Your task to perform on an android device: How much does a 3 bedroom apartment rent for in Denver? Image 0: 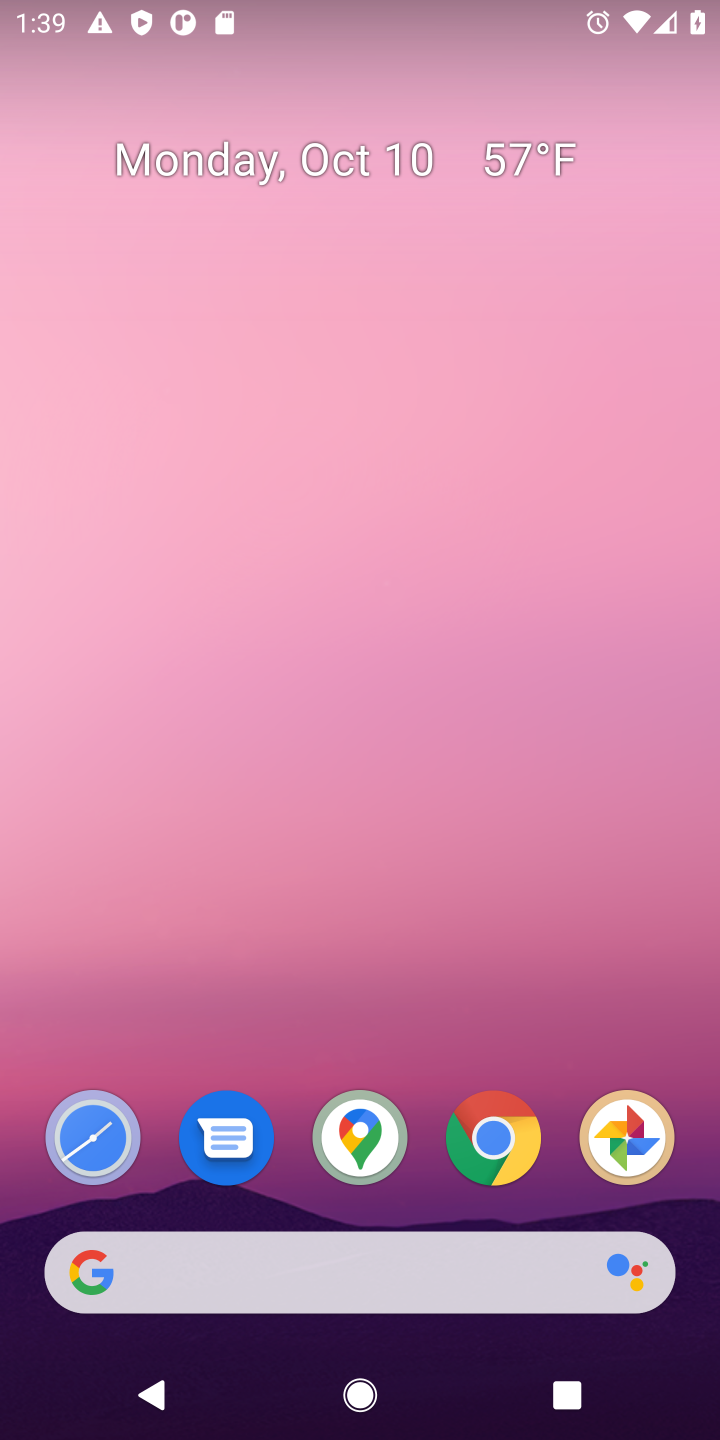
Step 0: click (443, 1277)
Your task to perform on an android device: How much does a 3 bedroom apartment rent for in Denver? Image 1: 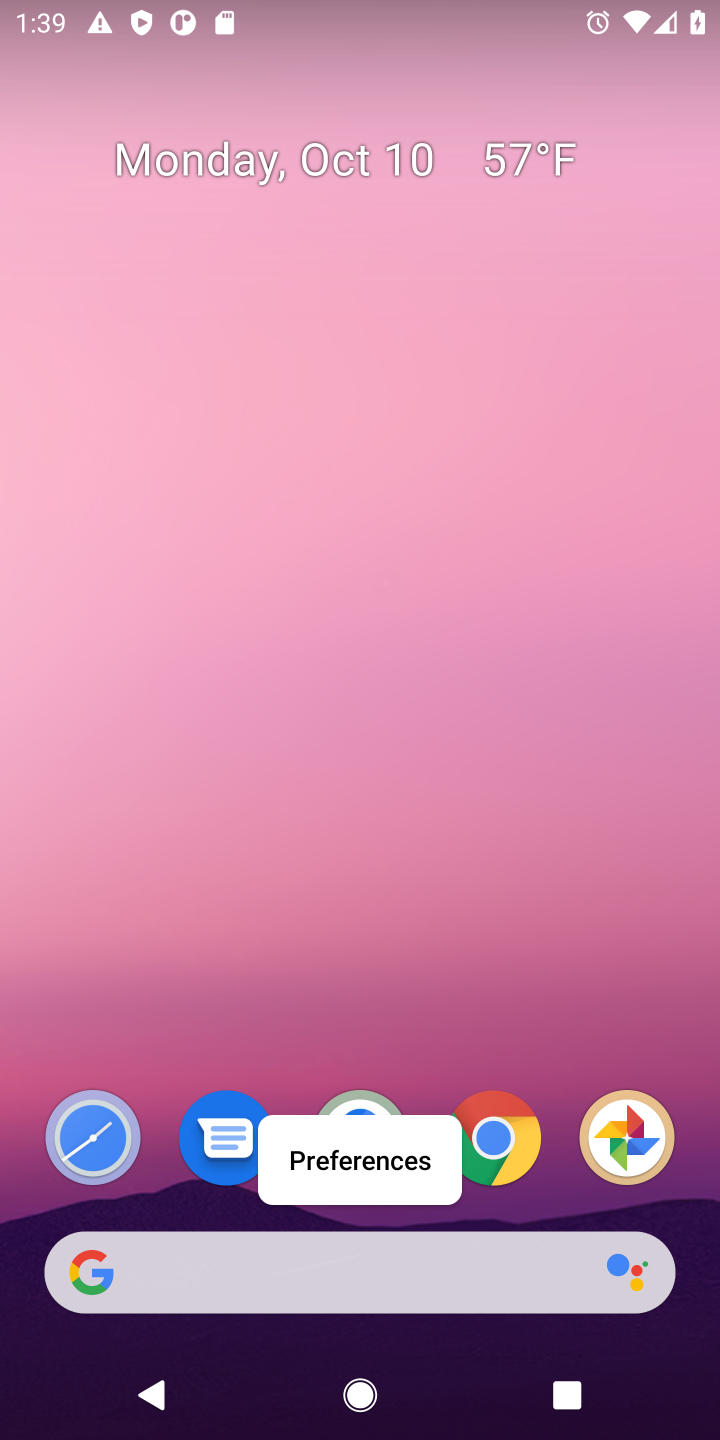
Step 1: click (499, 1278)
Your task to perform on an android device: How much does a 3 bedroom apartment rent for in Denver? Image 2: 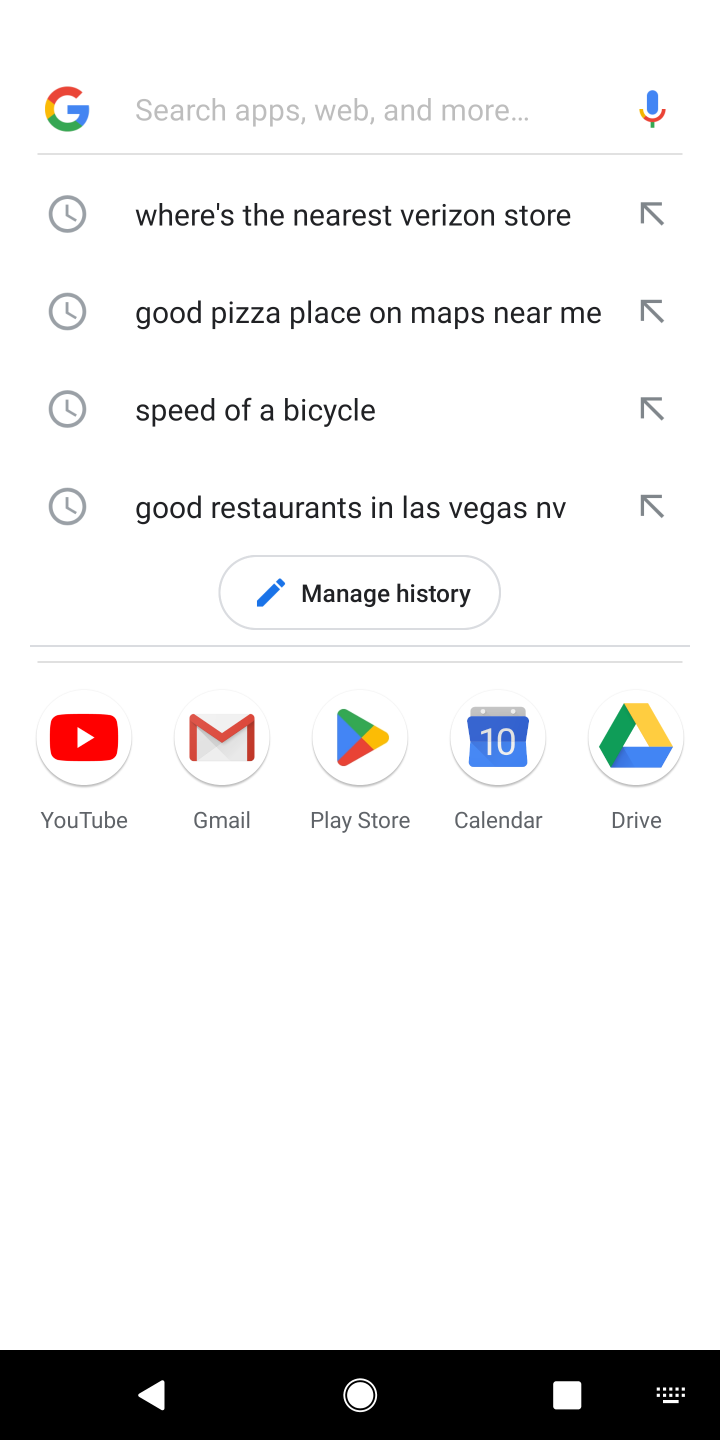
Step 2: type "How much does a 3 bedroom apartment rent for in Denver?"
Your task to perform on an android device: How much does a 3 bedroom apartment rent for in Denver? Image 3: 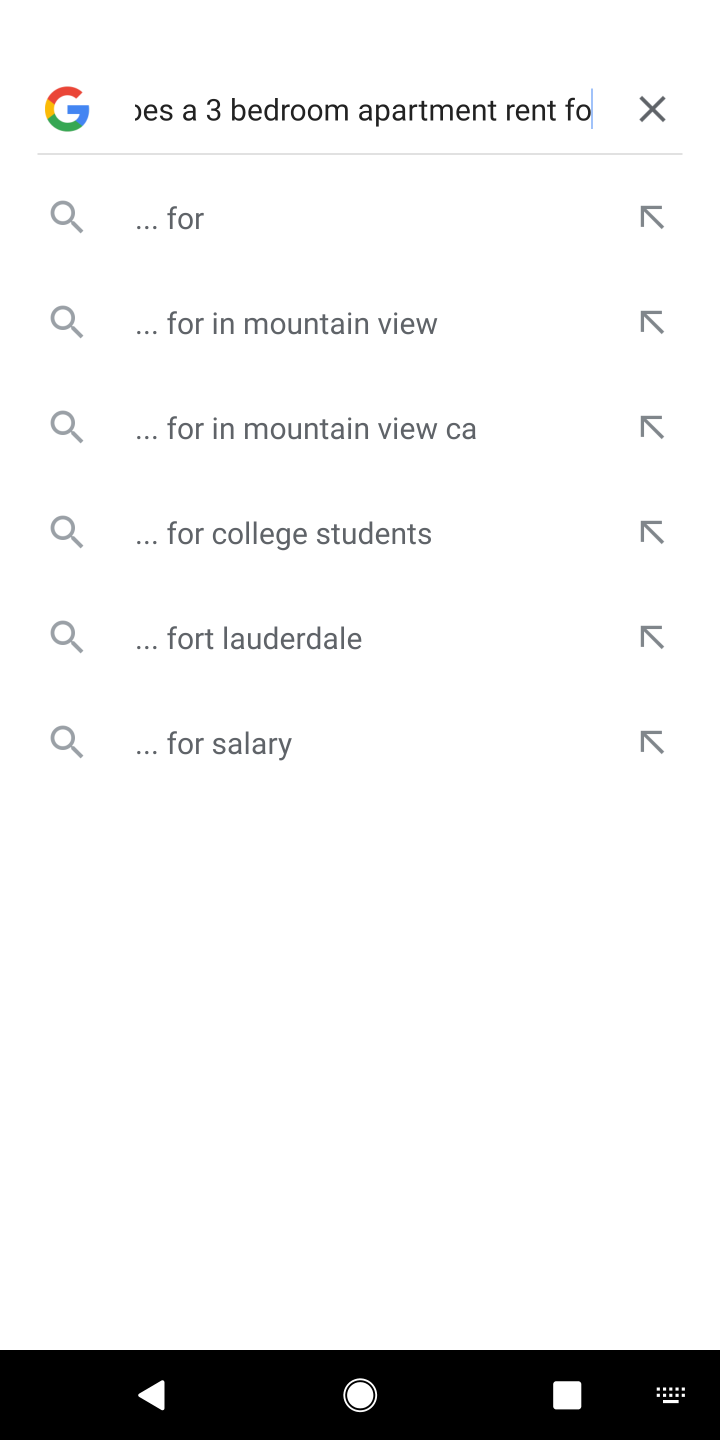
Step 3: type "r in denver"
Your task to perform on an android device: How much does a 3 bedroom apartment rent for in Denver? Image 4: 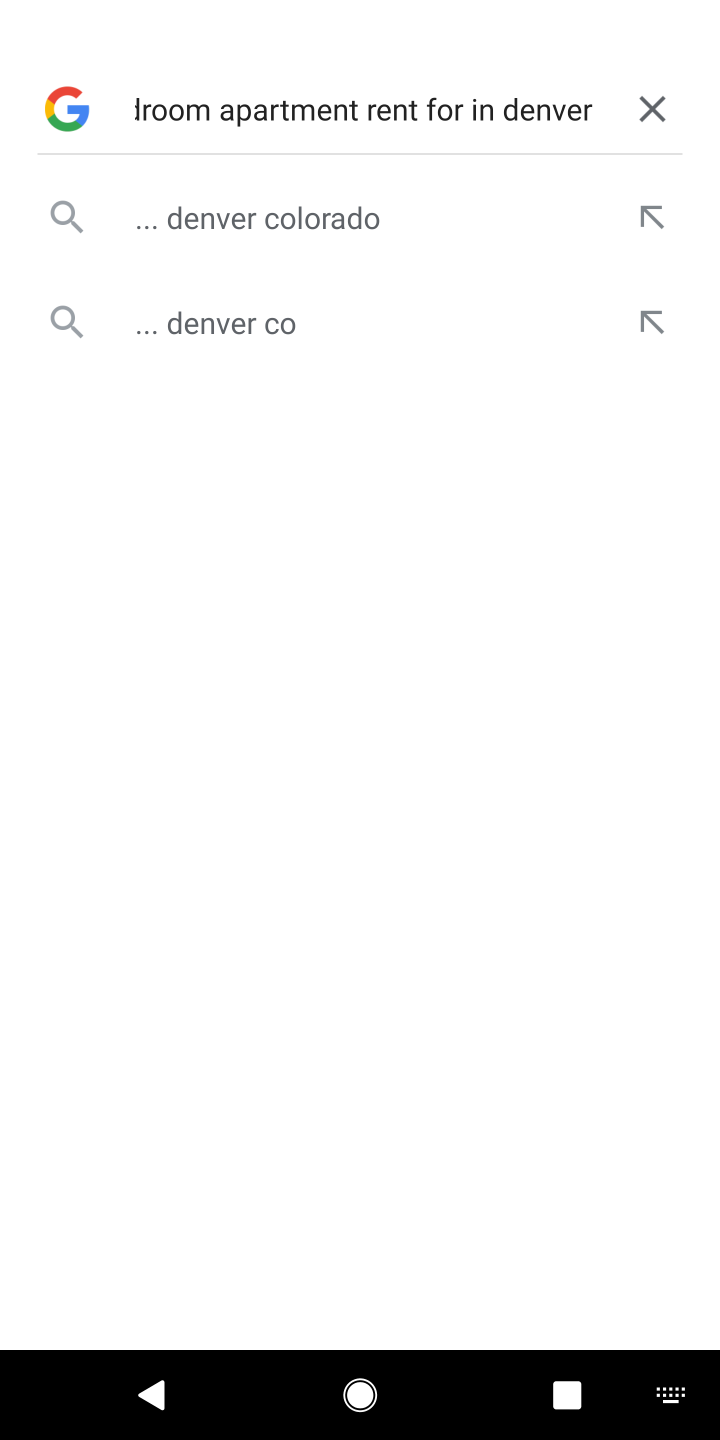
Step 4: click (191, 316)
Your task to perform on an android device: How much does a 3 bedroom apartment rent for in Denver? Image 5: 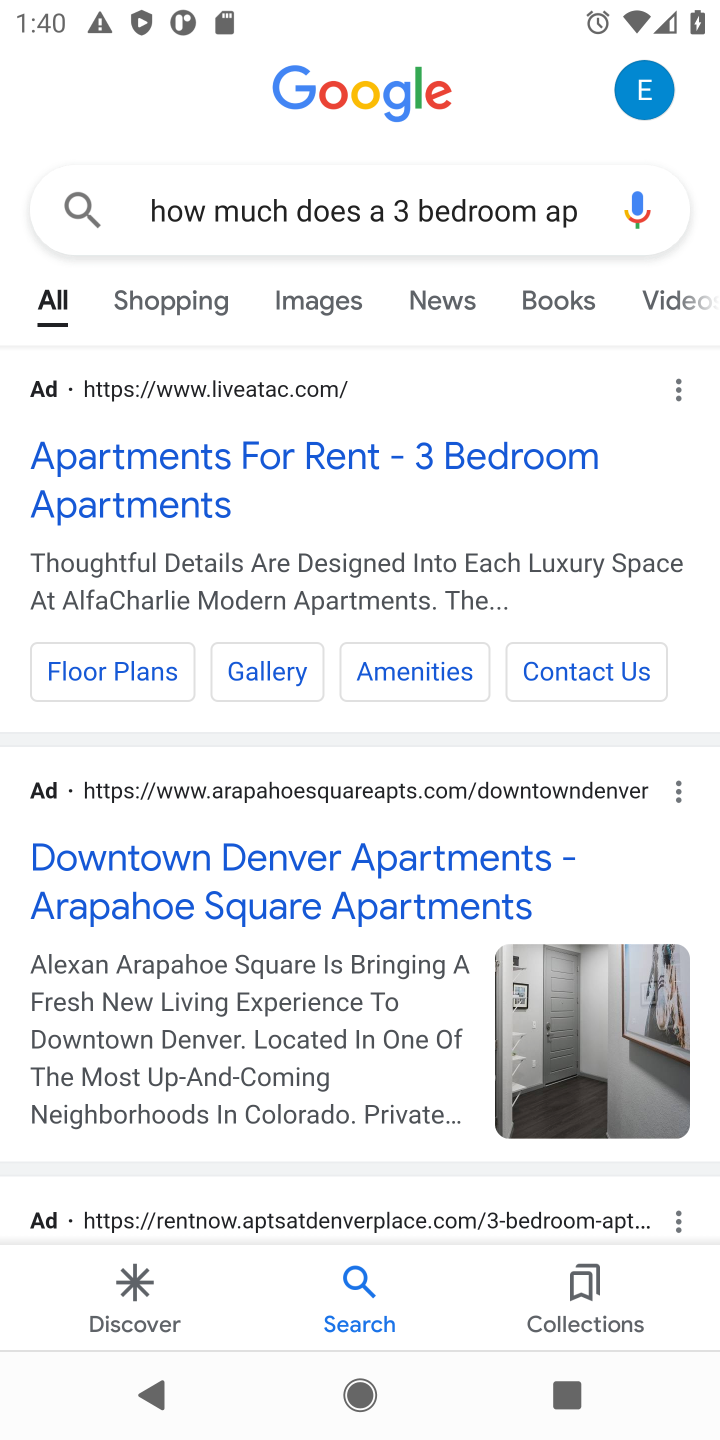
Step 5: click (206, 458)
Your task to perform on an android device: How much does a 3 bedroom apartment rent for in Denver? Image 6: 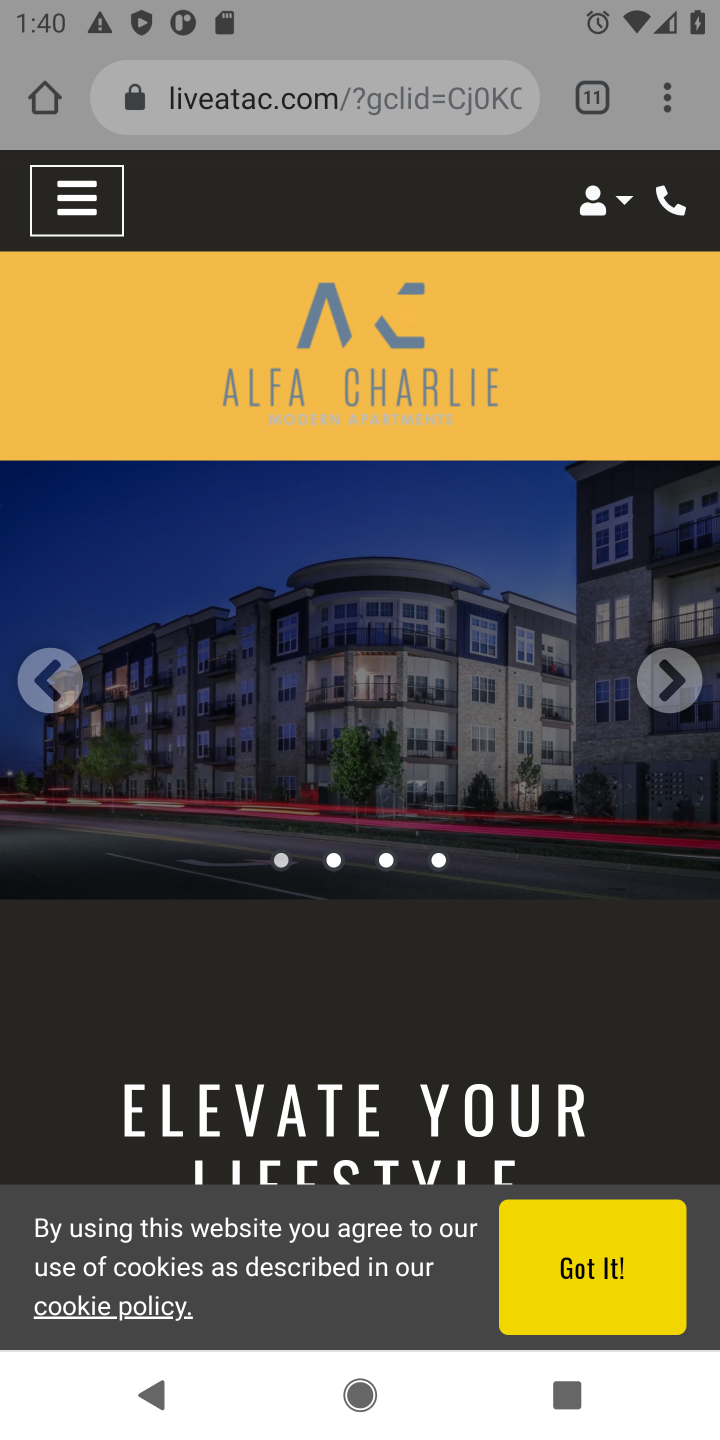
Step 6: click (576, 1267)
Your task to perform on an android device: How much does a 3 bedroom apartment rent for in Denver? Image 7: 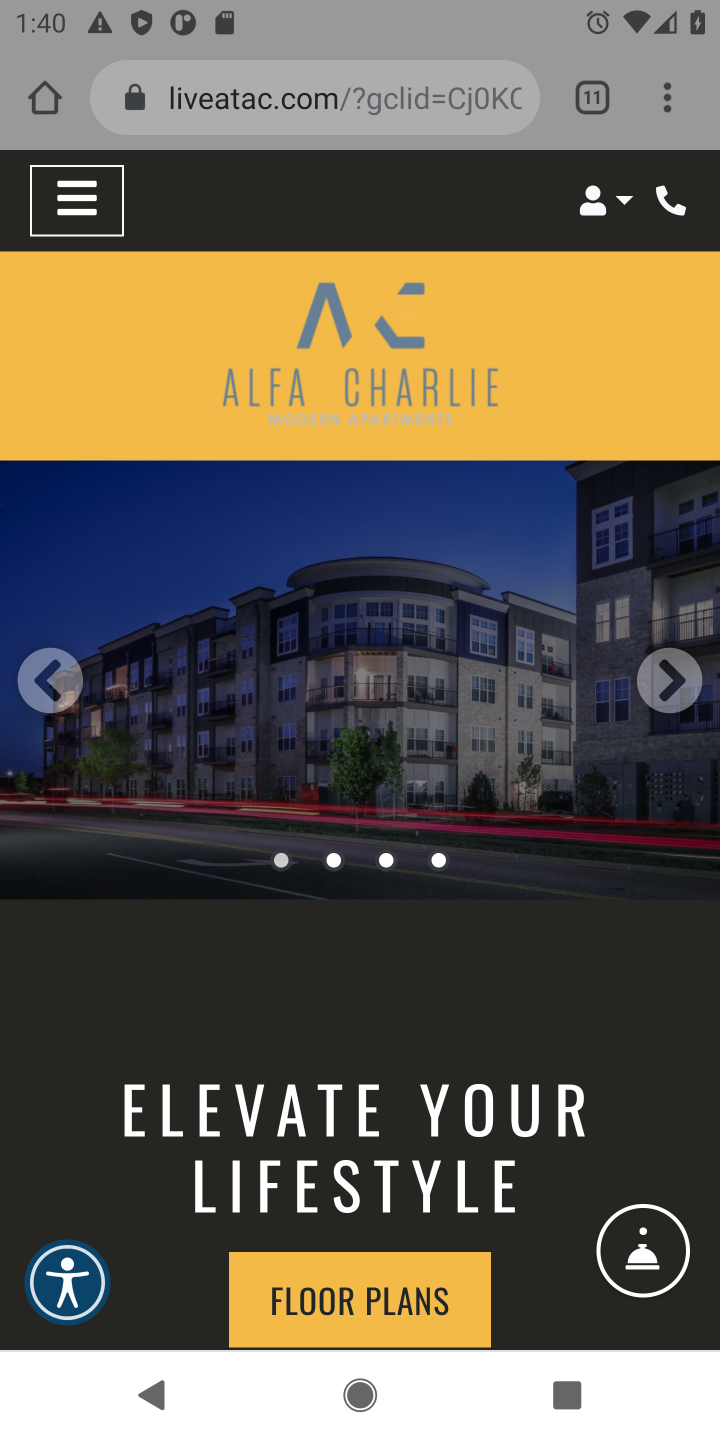
Step 7: click (651, 702)
Your task to perform on an android device: How much does a 3 bedroom apartment rent for in Denver? Image 8: 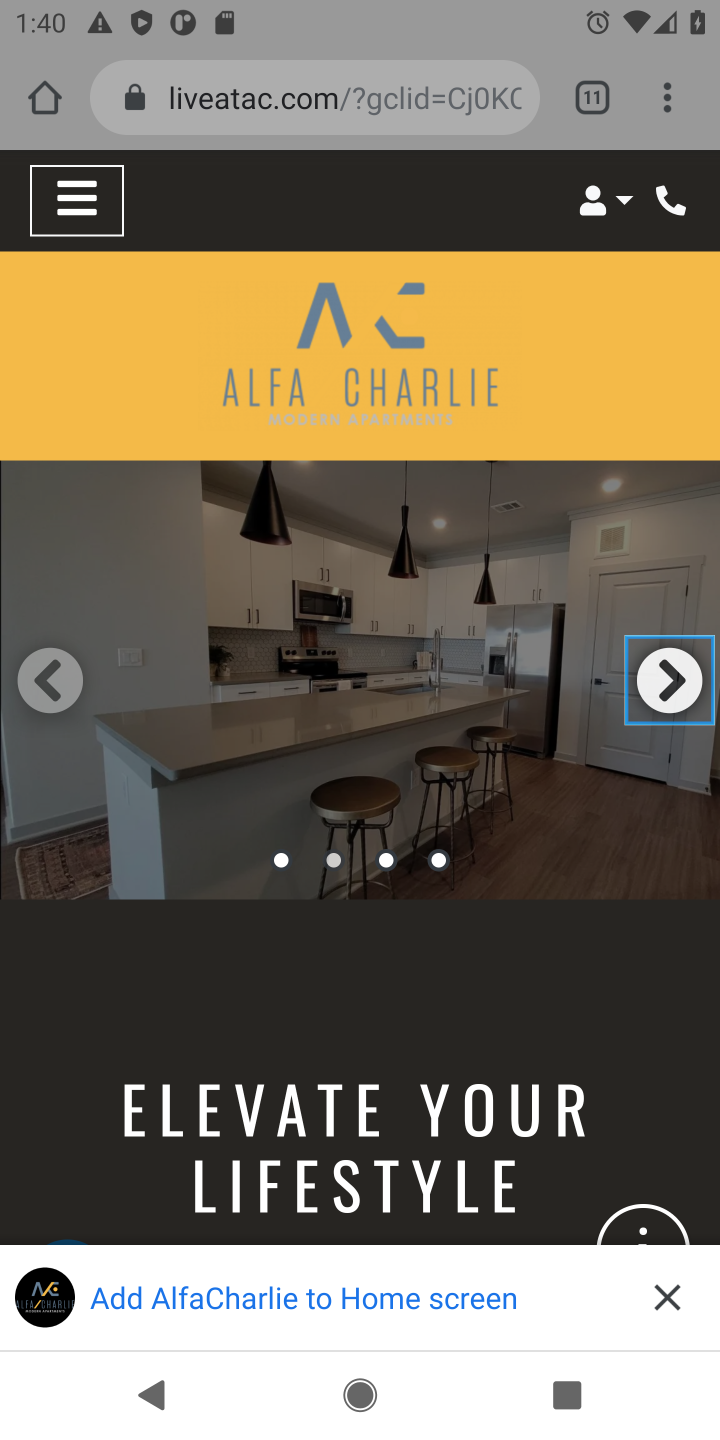
Step 8: click (651, 702)
Your task to perform on an android device: How much does a 3 bedroom apartment rent for in Denver? Image 9: 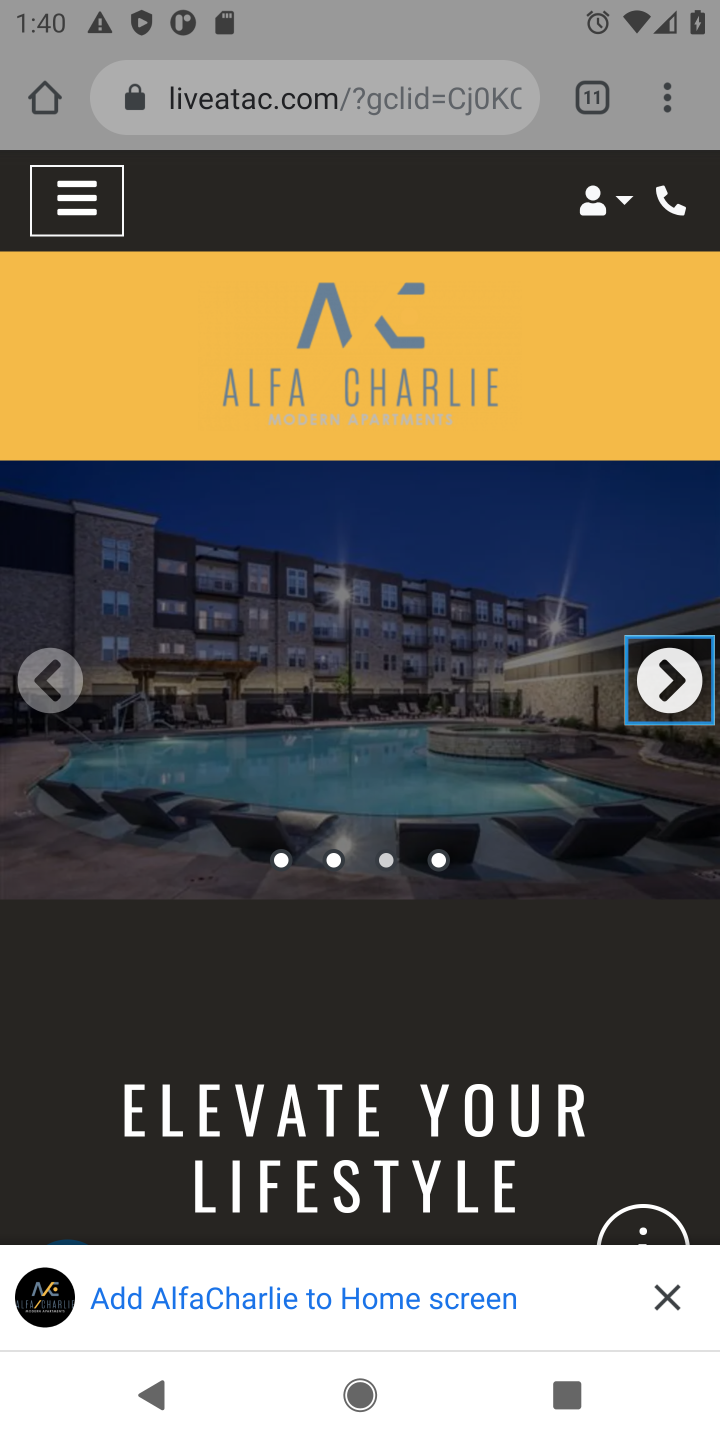
Step 9: click (651, 702)
Your task to perform on an android device: How much does a 3 bedroom apartment rent for in Denver? Image 10: 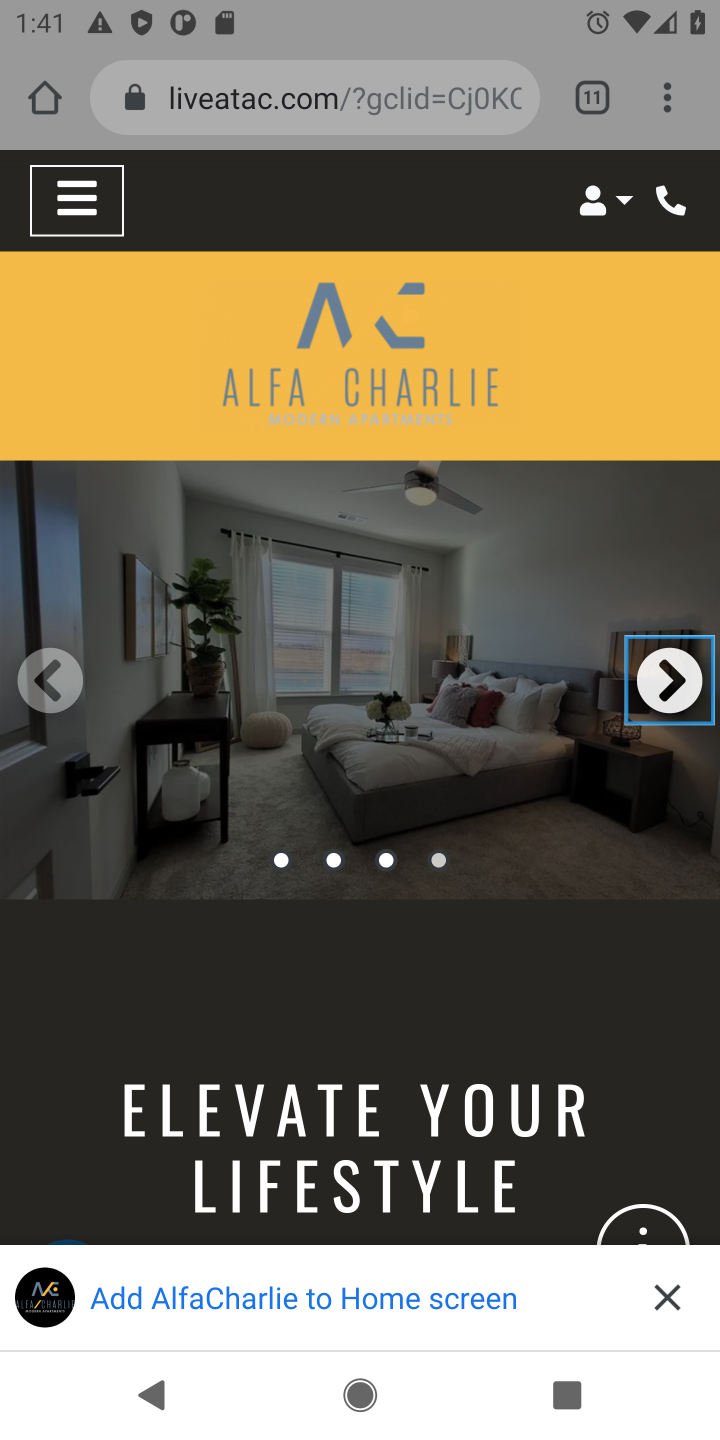
Step 10: click (651, 702)
Your task to perform on an android device: How much does a 3 bedroom apartment rent for in Denver? Image 11: 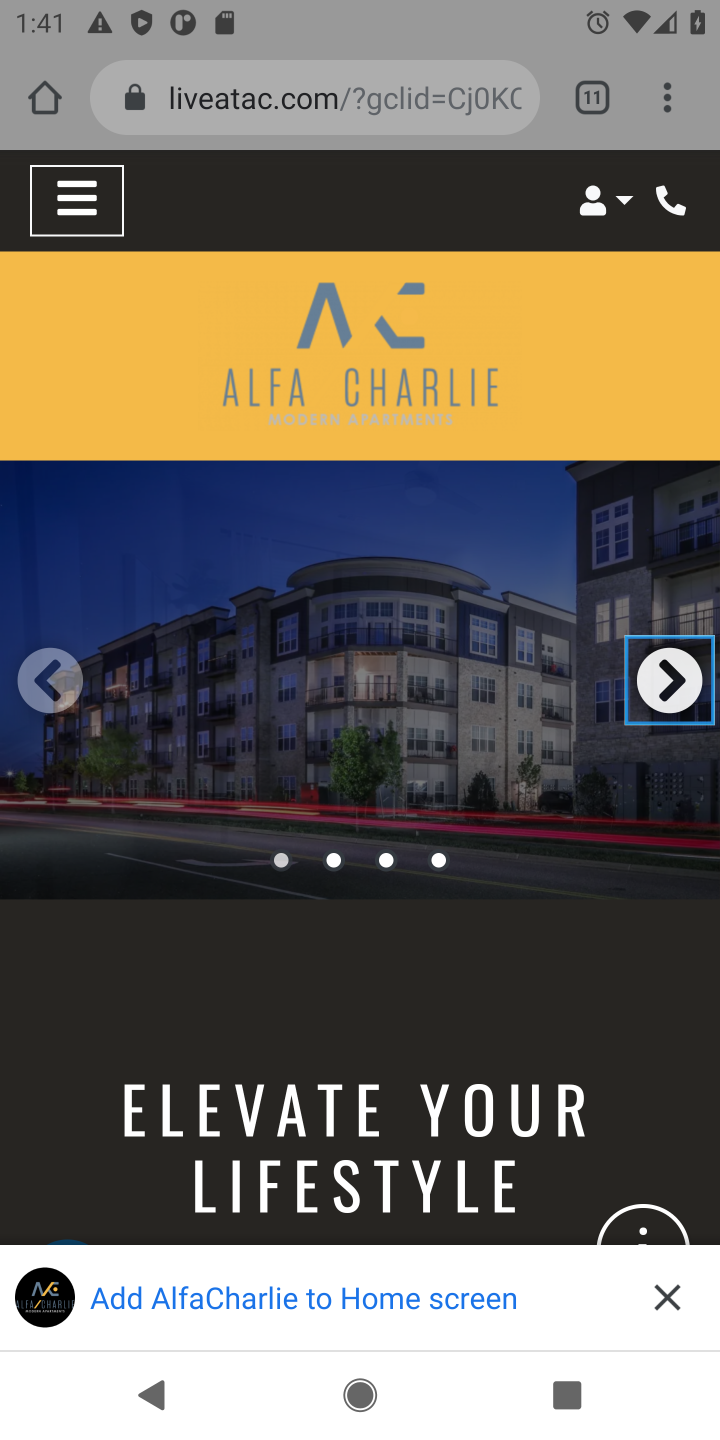
Step 11: click (72, 195)
Your task to perform on an android device: How much does a 3 bedroom apartment rent for in Denver? Image 12: 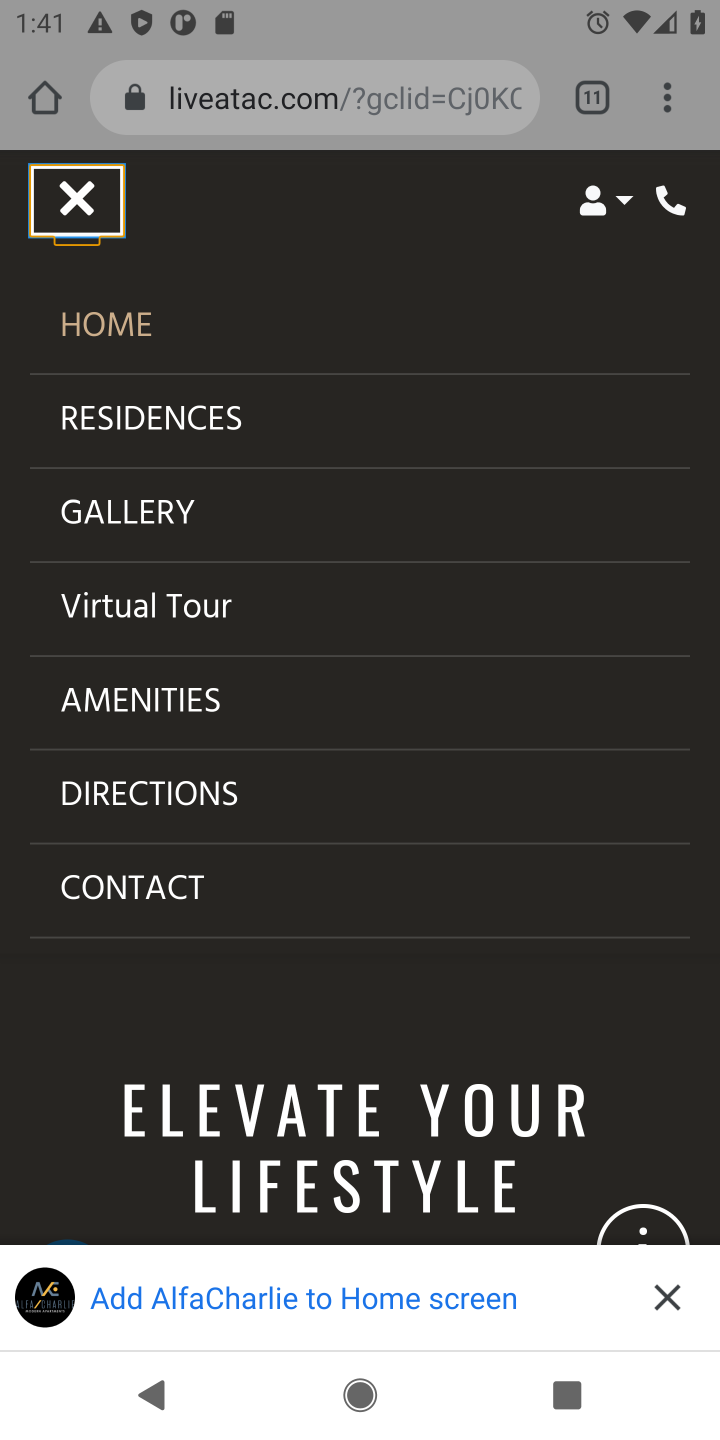
Step 12: click (81, 195)
Your task to perform on an android device: How much does a 3 bedroom apartment rent for in Denver? Image 13: 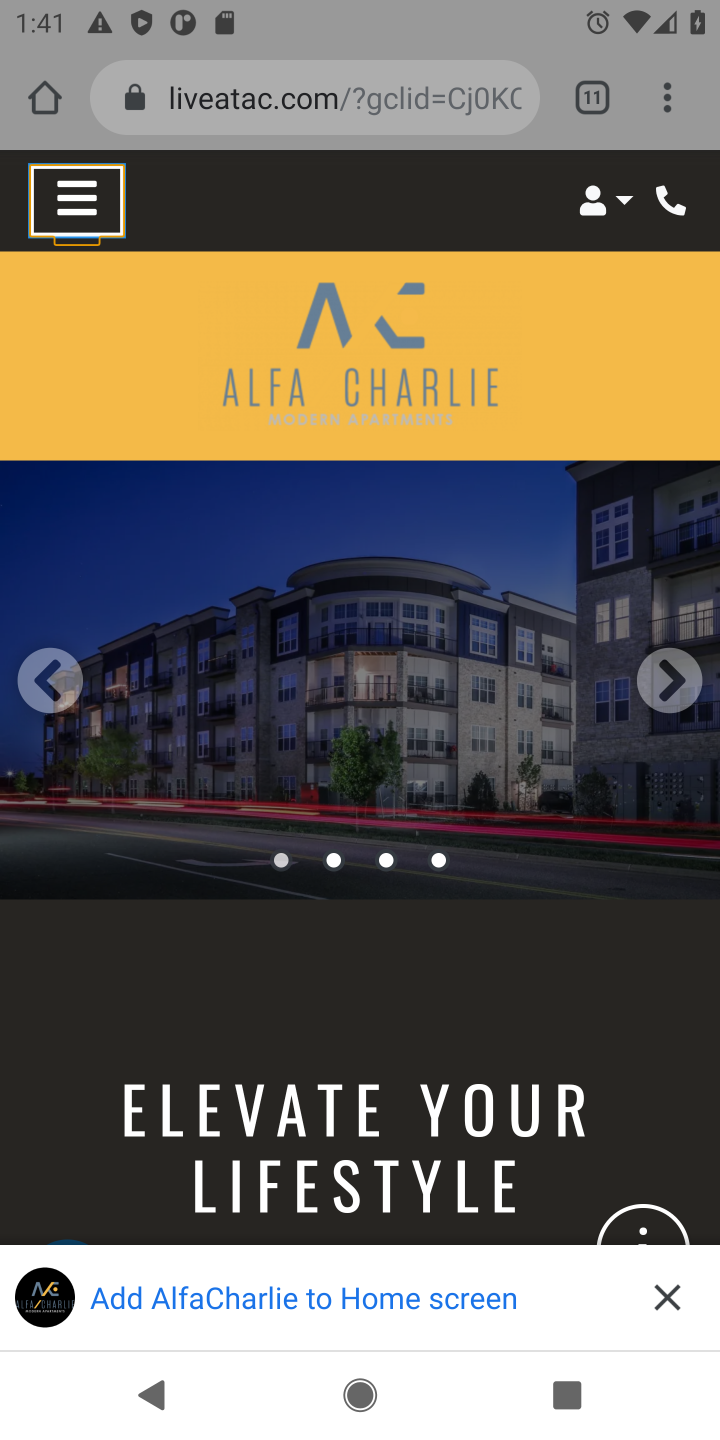
Step 13: drag from (404, 676) to (424, 433)
Your task to perform on an android device: How much does a 3 bedroom apartment rent for in Denver? Image 14: 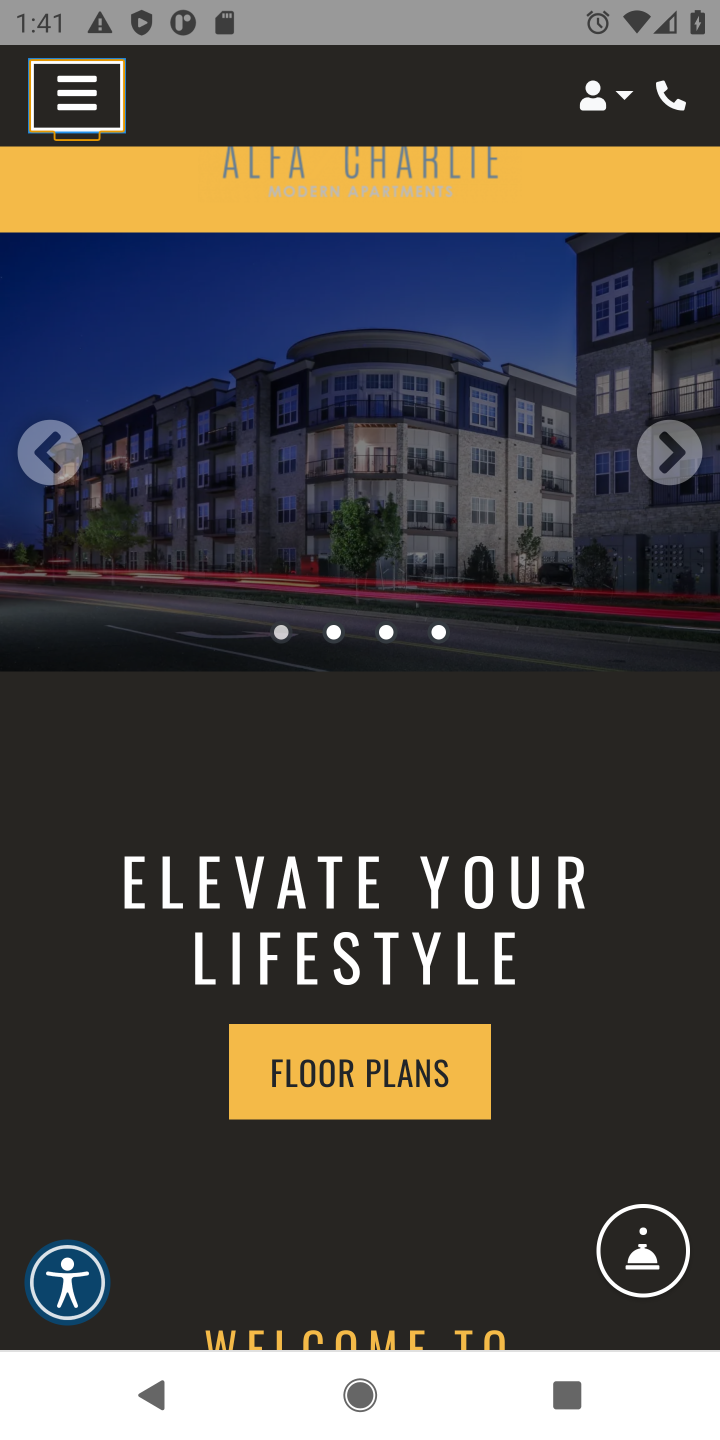
Step 14: drag from (481, 1138) to (481, 782)
Your task to perform on an android device: How much does a 3 bedroom apartment rent for in Denver? Image 15: 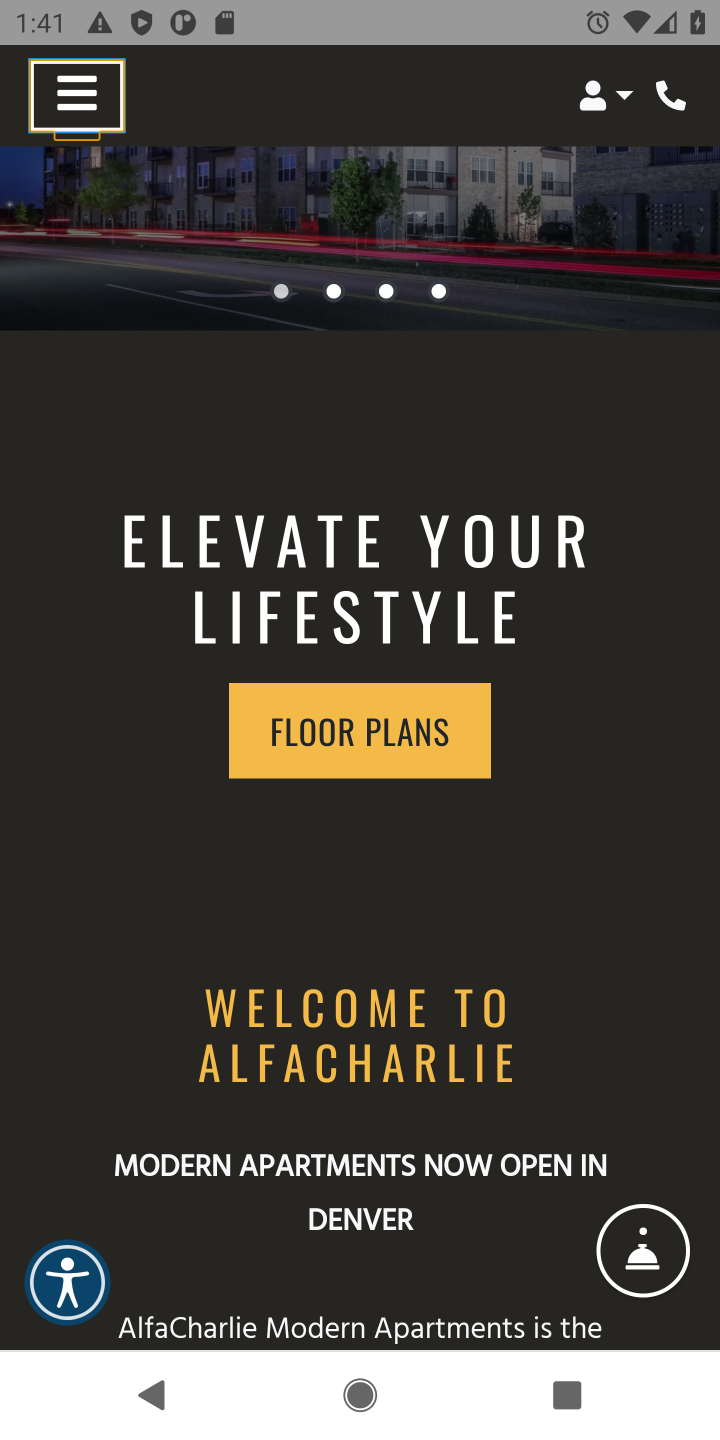
Step 15: drag from (528, 1011) to (516, 753)
Your task to perform on an android device: How much does a 3 bedroom apartment rent for in Denver? Image 16: 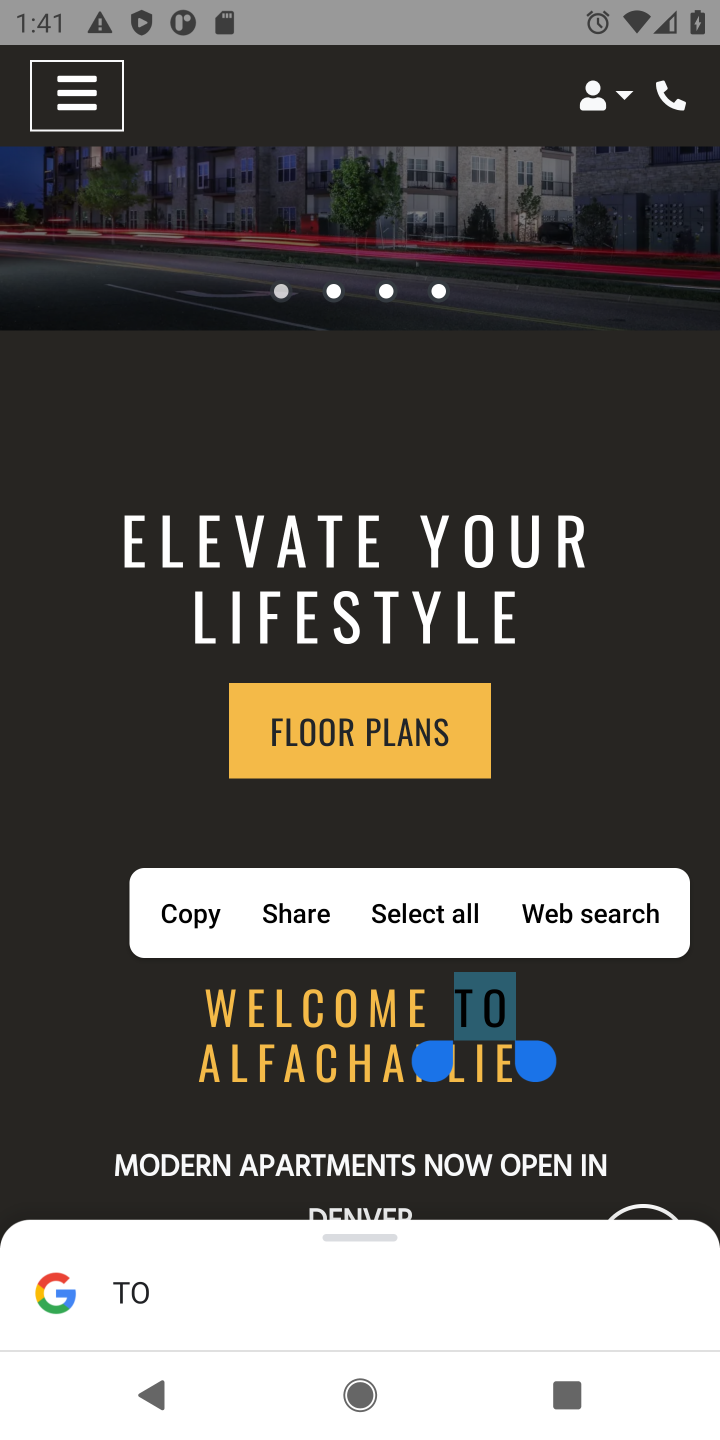
Step 16: click (593, 1010)
Your task to perform on an android device: How much does a 3 bedroom apartment rent for in Denver? Image 17: 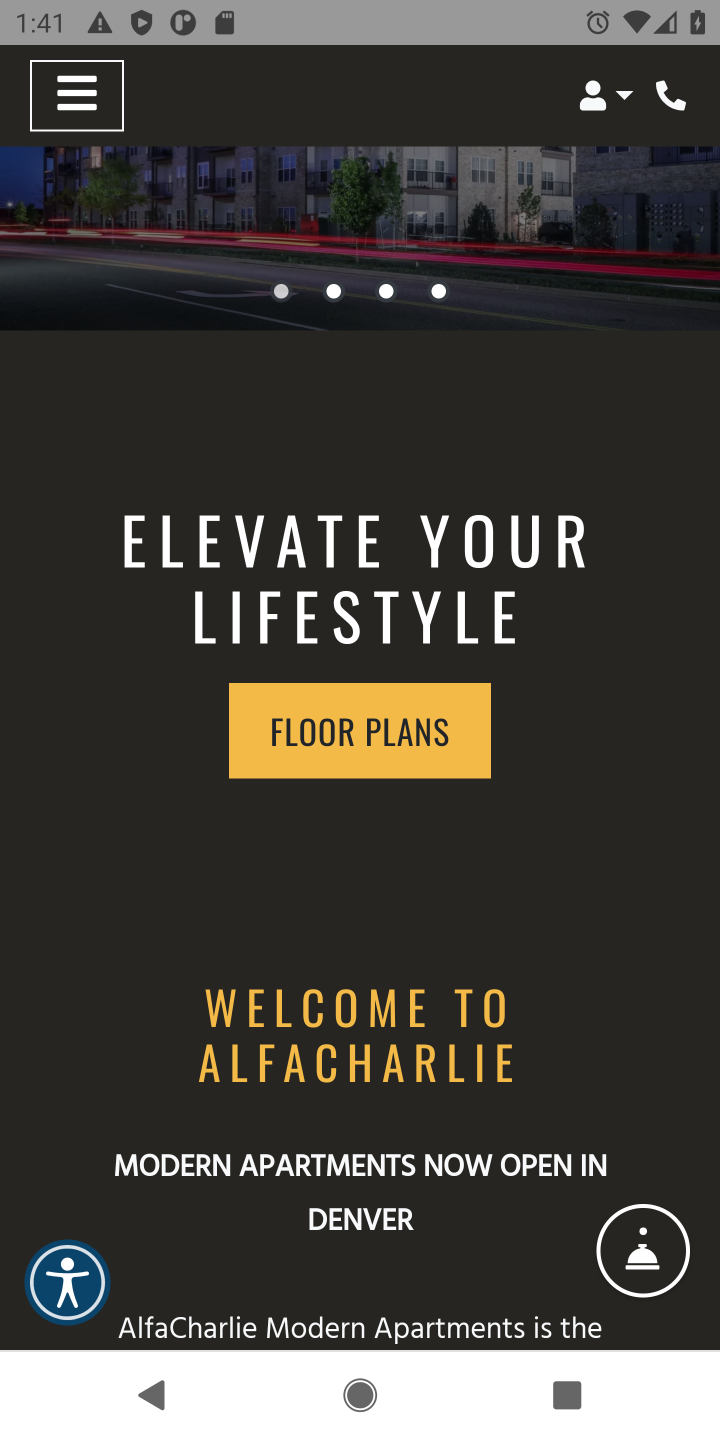
Step 17: drag from (593, 1100) to (615, 777)
Your task to perform on an android device: How much does a 3 bedroom apartment rent for in Denver? Image 18: 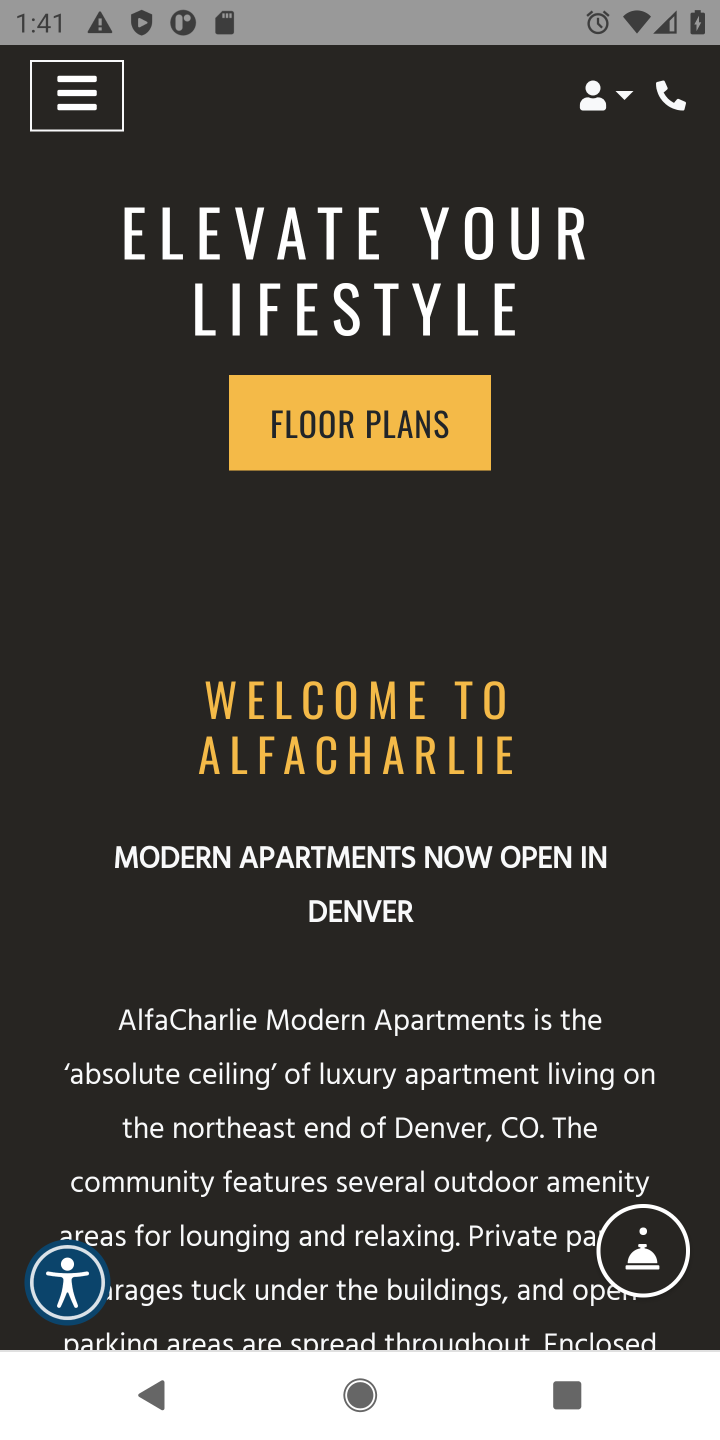
Step 18: drag from (633, 974) to (558, 527)
Your task to perform on an android device: How much does a 3 bedroom apartment rent for in Denver? Image 19: 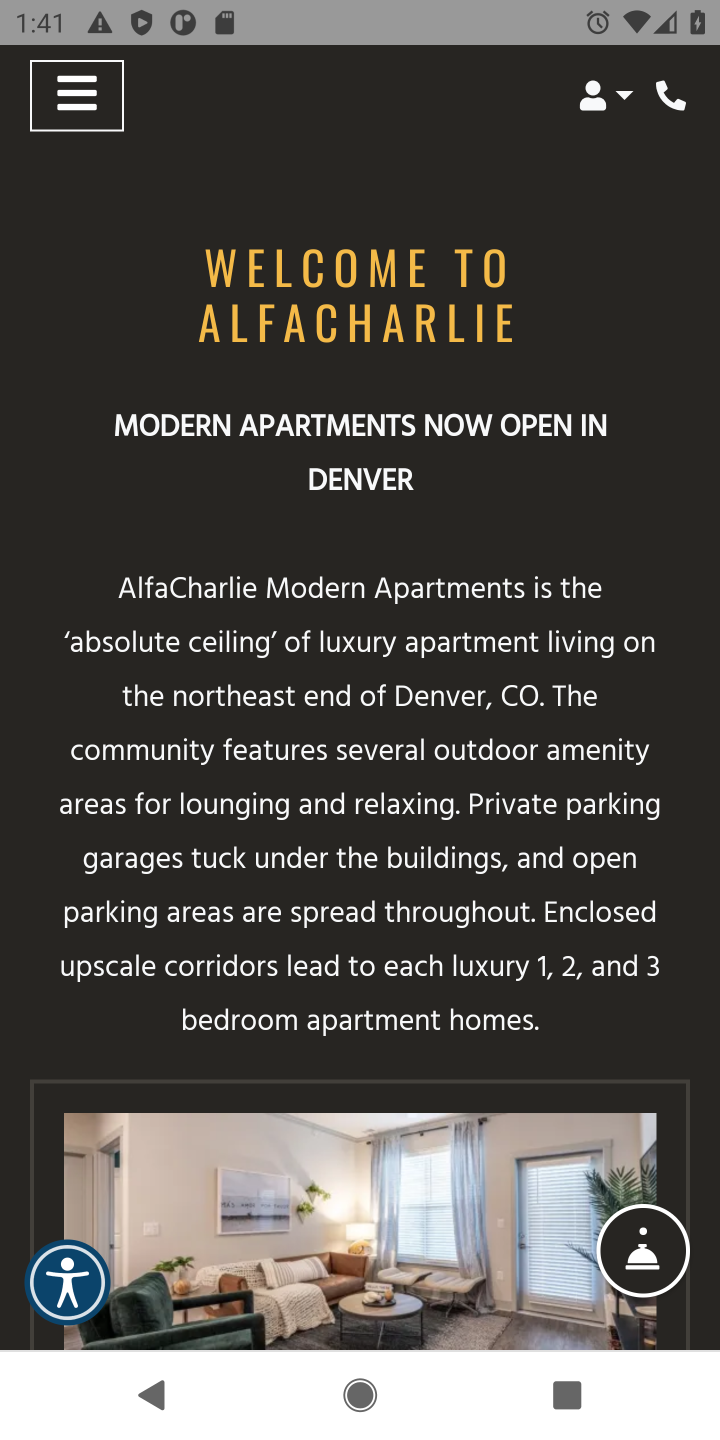
Step 19: drag from (460, 1166) to (409, 750)
Your task to perform on an android device: How much does a 3 bedroom apartment rent for in Denver? Image 20: 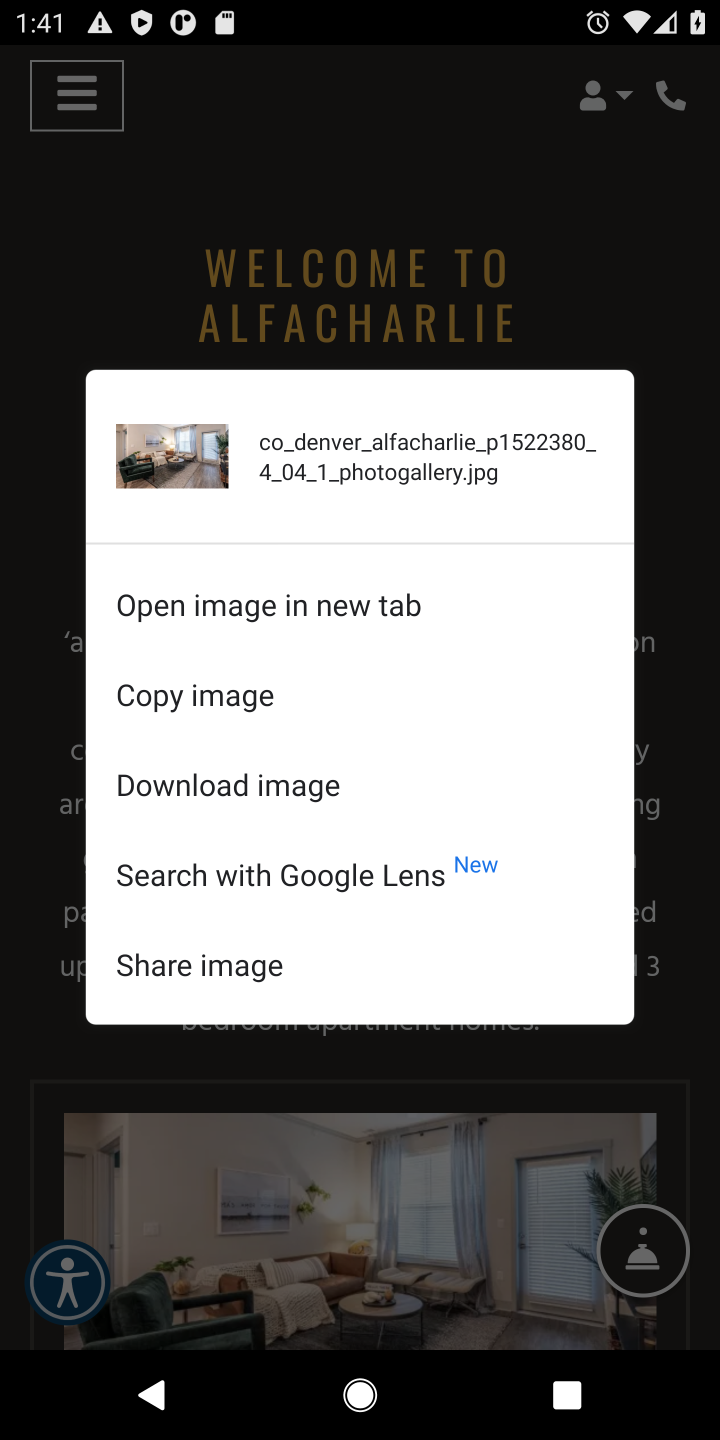
Step 20: click (597, 281)
Your task to perform on an android device: How much does a 3 bedroom apartment rent for in Denver? Image 21: 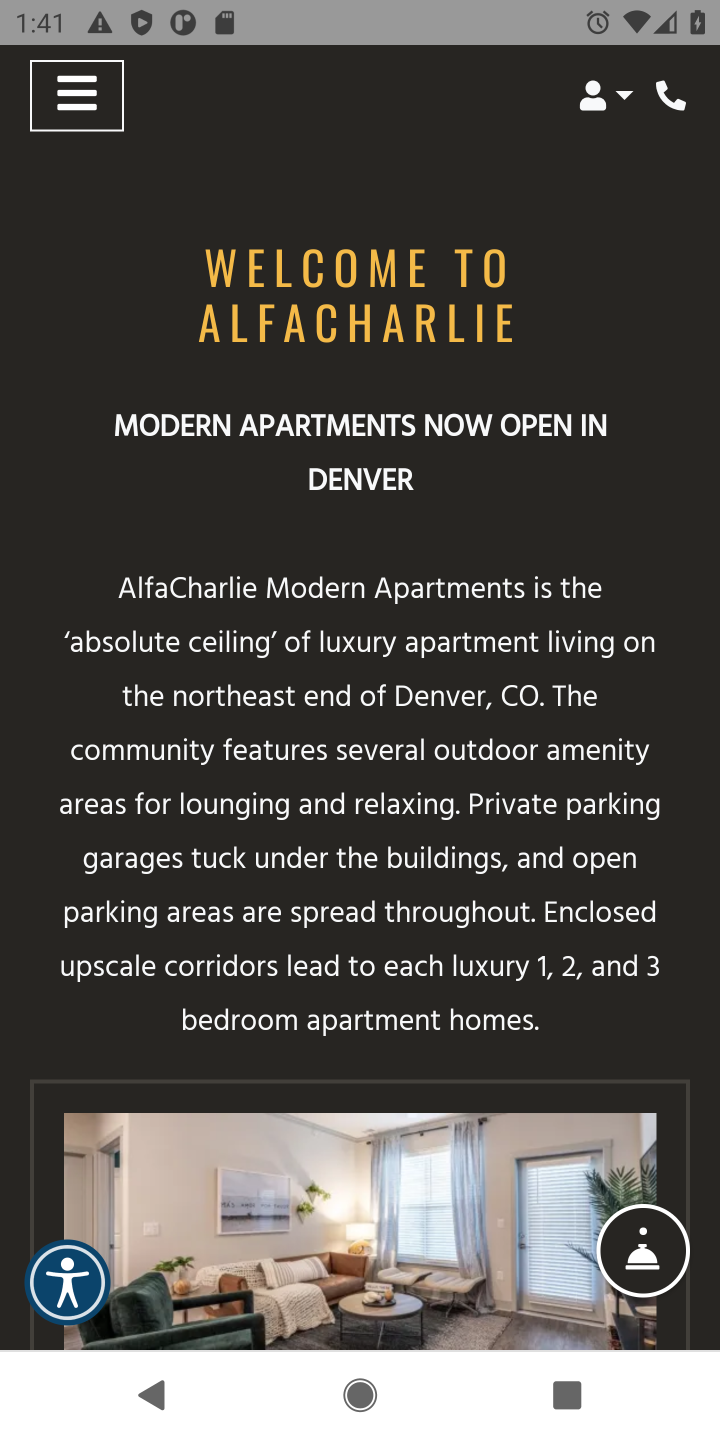
Step 21: task complete